Your task to perform on an android device: change timer sound Image 0: 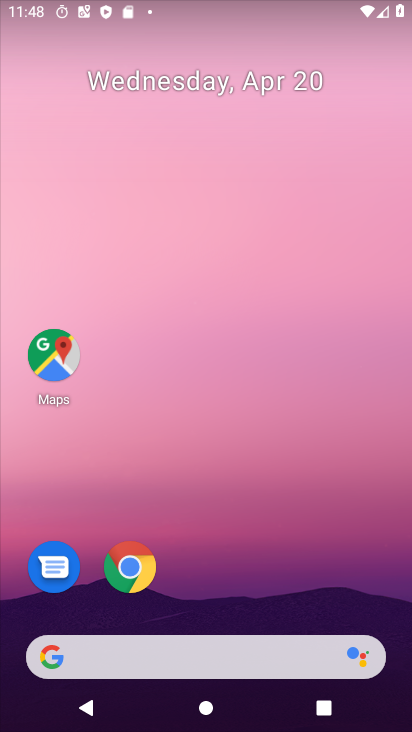
Step 0: drag from (316, 562) to (353, 77)
Your task to perform on an android device: change timer sound Image 1: 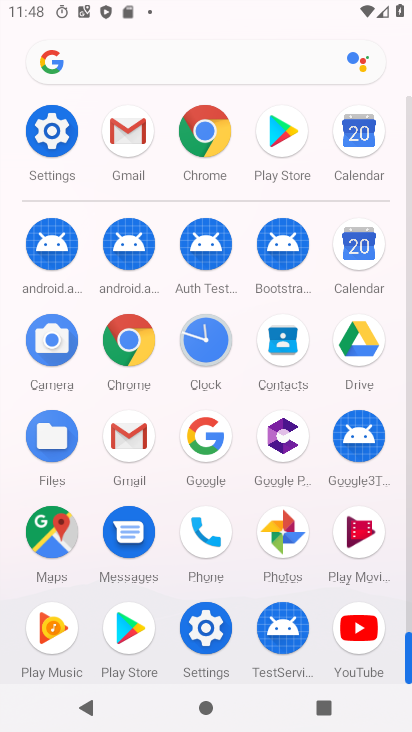
Step 1: click (198, 352)
Your task to perform on an android device: change timer sound Image 2: 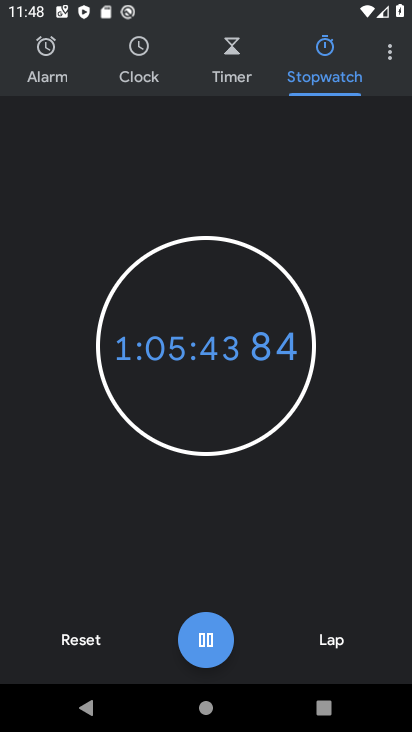
Step 2: click (388, 53)
Your task to perform on an android device: change timer sound Image 3: 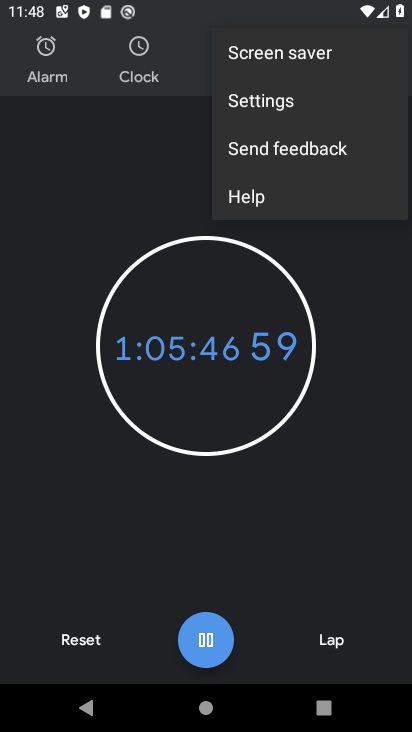
Step 3: click (289, 108)
Your task to perform on an android device: change timer sound Image 4: 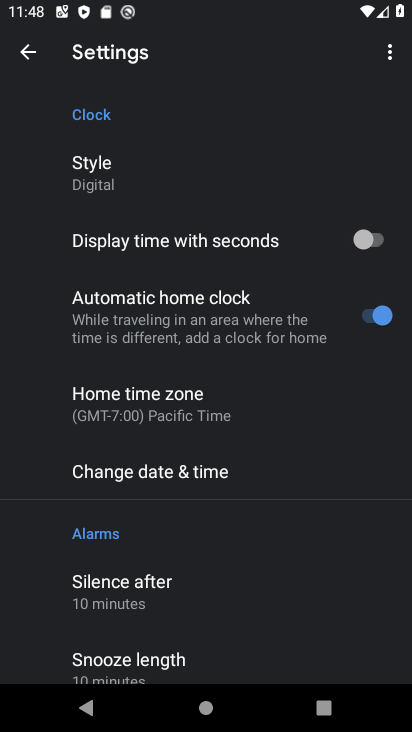
Step 4: drag from (199, 566) to (267, 188)
Your task to perform on an android device: change timer sound Image 5: 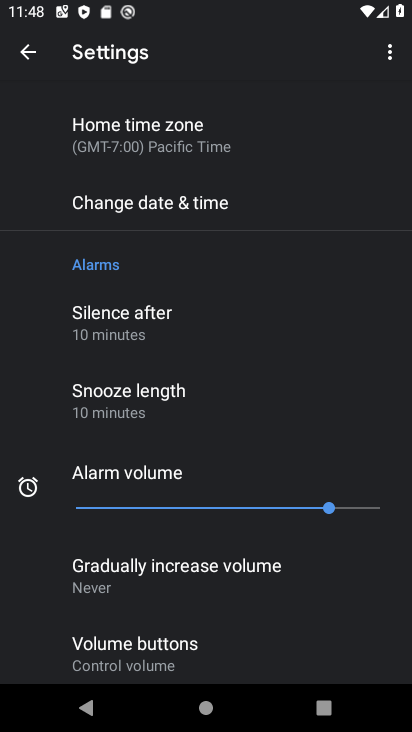
Step 5: drag from (256, 602) to (326, 196)
Your task to perform on an android device: change timer sound Image 6: 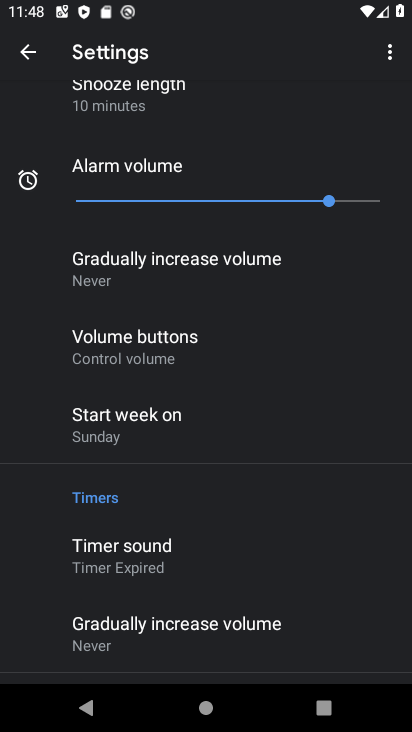
Step 6: click (185, 560)
Your task to perform on an android device: change timer sound Image 7: 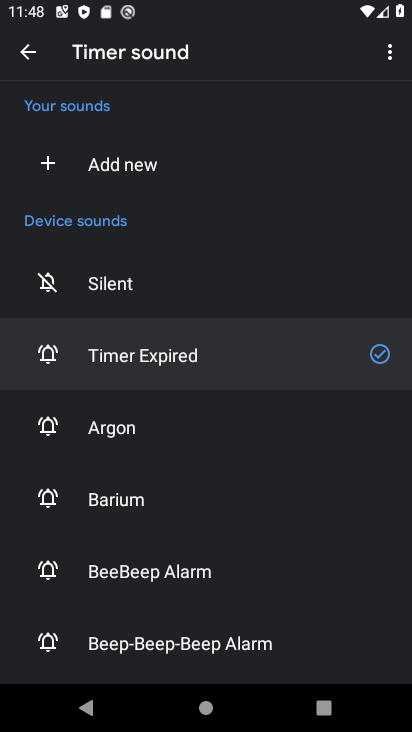
Step 7: click (180, 449)
Your task to perform on an android device: change timer sound Image 8: 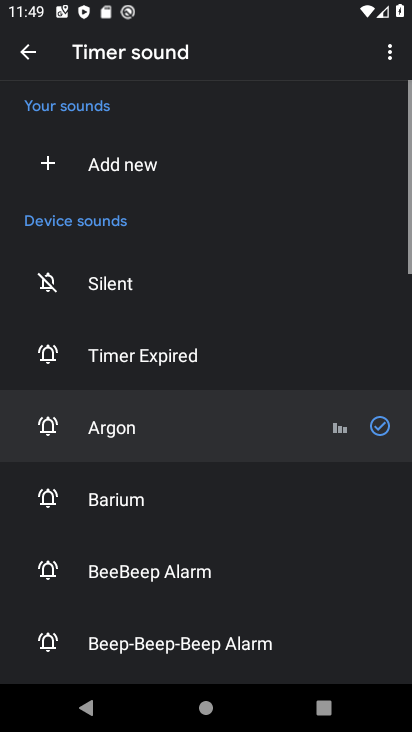
Step 8: task complete